Your task to perform on an android device: turn on translation in the chrome app Image 0: 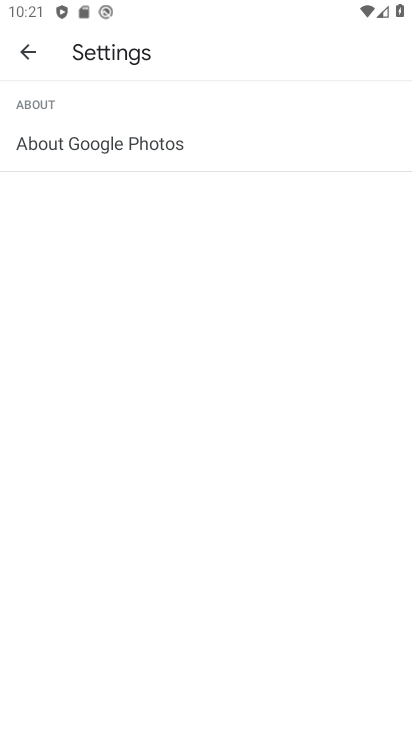
Step 0: task complete